Your task to perform on an android device: Go to Maps Image 0: 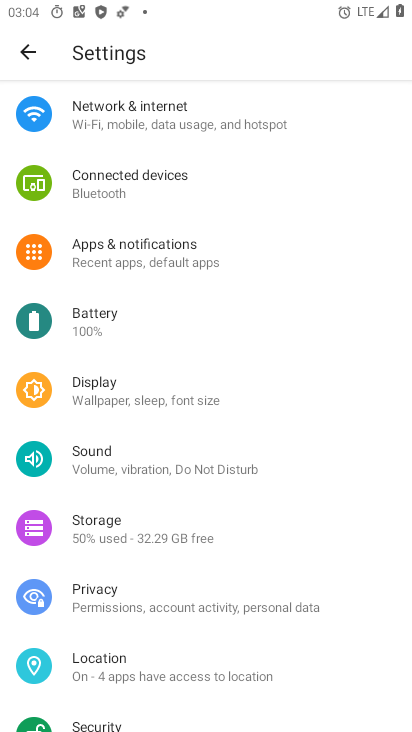
Step 0: press home button
Your task to perform on an android device: Go to Maps Image 1: 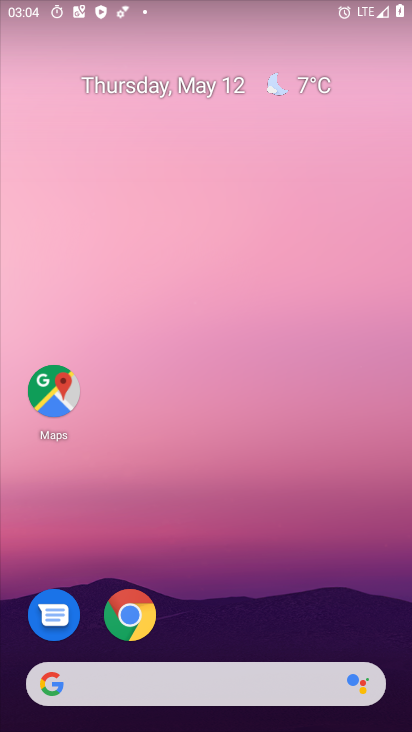
Step 1: click (44, 384)
Your task to perform on an android device: Go to Maps Image 2: 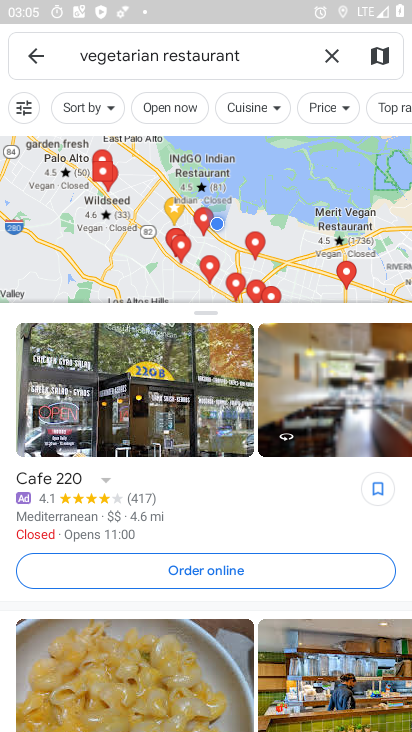
Step 2: task complete